Your task to perform on an android device: open a bookmark in the chrome app Image 0: 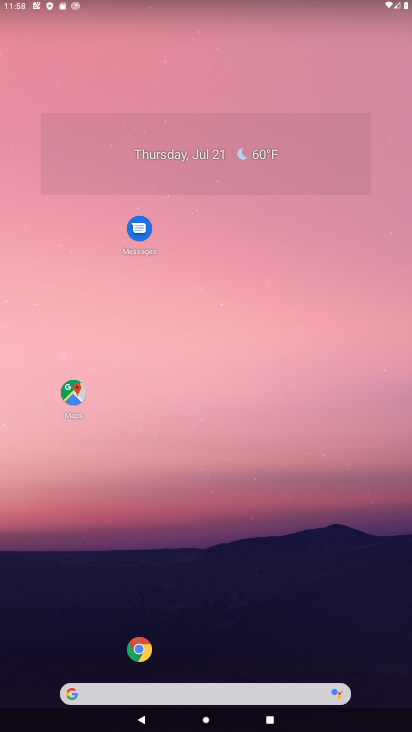
Step 0: click (123, 650)
Your task to perform on an android device: open a bookmark in the chrome app Image 1: 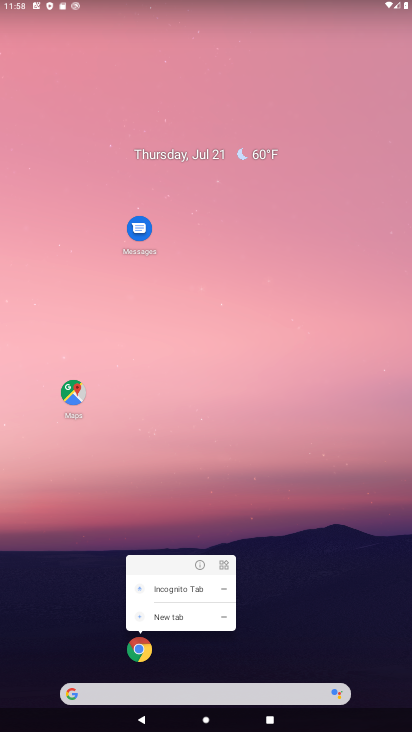
Step 1: click (134, 639)
Your task to perform on an android device: open a bookmark in the chrome app Image 2: 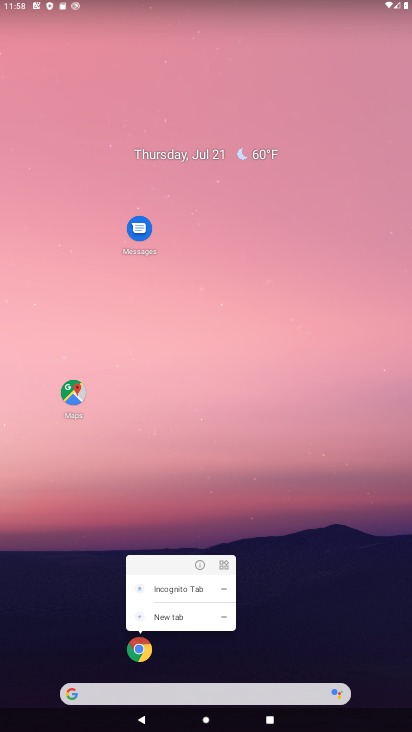
Step 2: click (135, 644)
Your task to perform on an android device: open a bookmark in the chrome app Image 3: 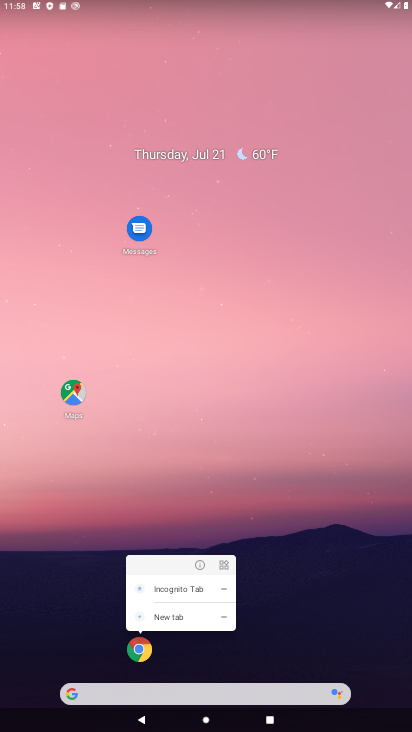
Step 3: click (135, 652)
Your task to perform on an android device: open a bookmark in the chrome app Image 4: 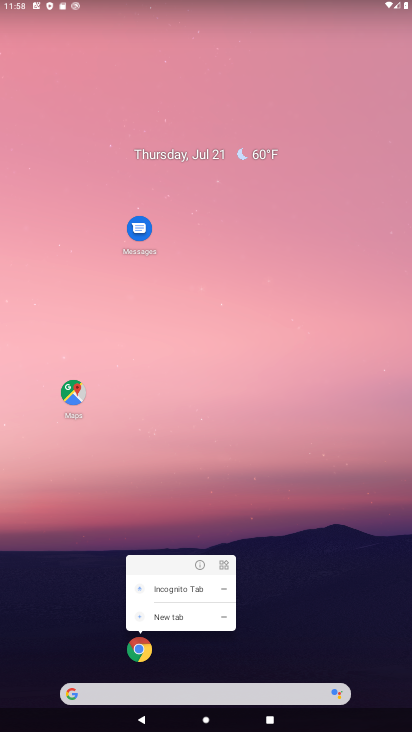
Step 4: task complete